Your task to perform on an android device: change alarm snooze length Image 0: 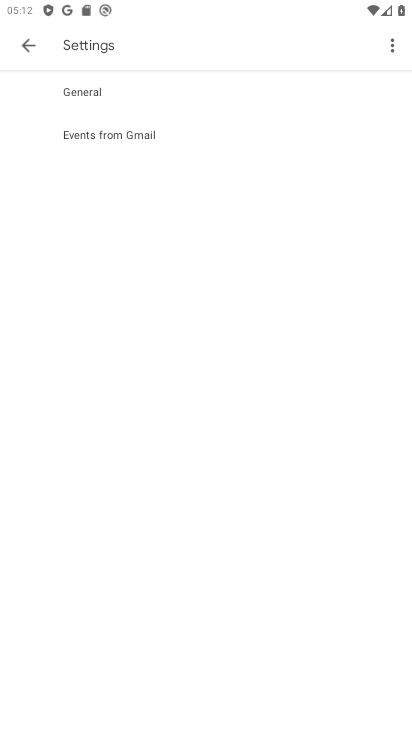
Step 0: press home button
Your task to perform on an android device: change alarm snooze length Image 1: 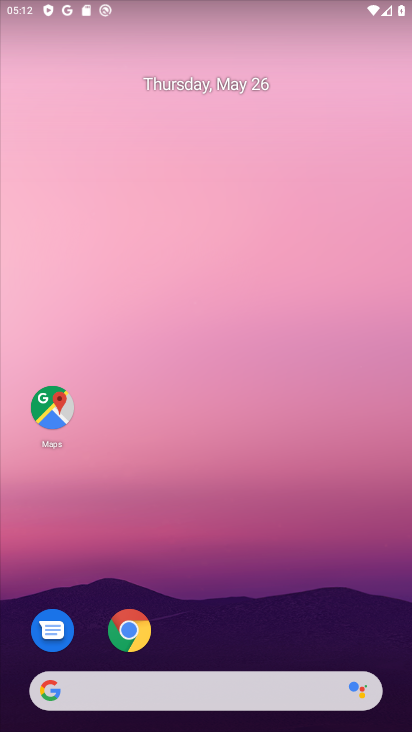
Step 1: drag from (176, 673) to (269, 131)
Your task to perform on an android device: change alarm snooze length Image 2: 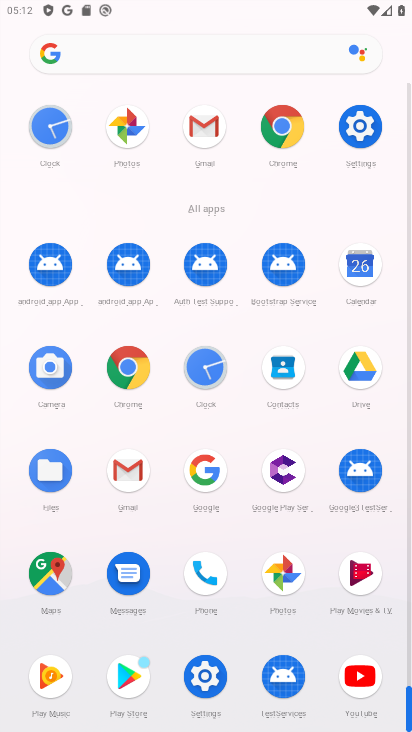
Step 2: click (201, 364)
Your task to perform on an android device: change alarm snooze length Image 3: 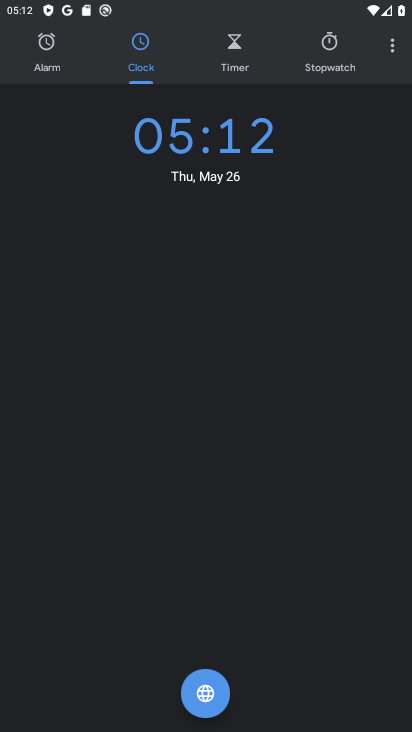
Step 3: click (389, 59)
Your task to perform on an android device: change alarm snooze length Image 4: 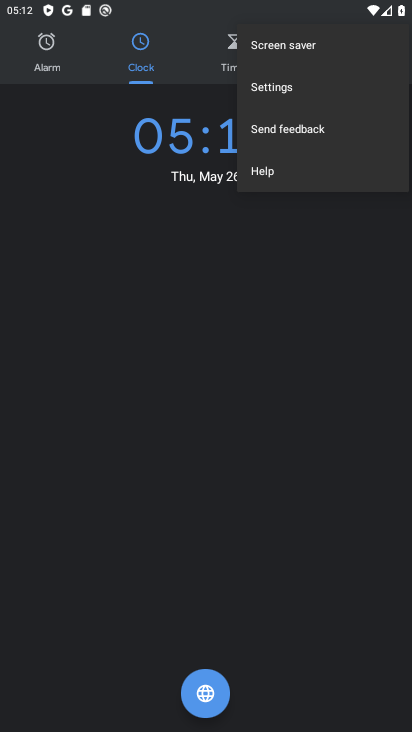
Step 4: click (344, 92)
Your task to perform on an android device: change alarm snooze length Image 5: 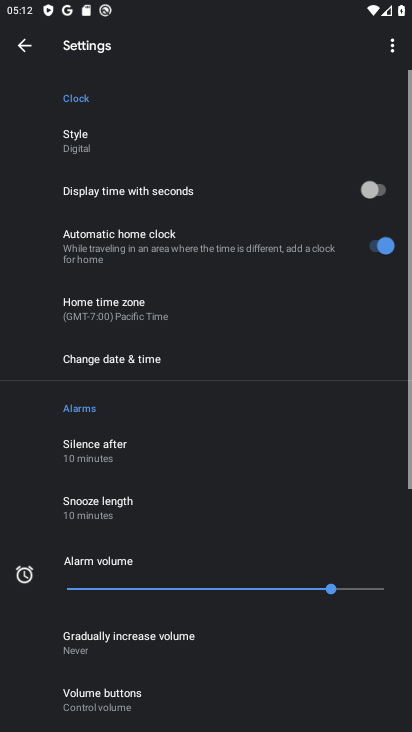
Step 5: drag from (186, 560) to (295, 190)
Your task to perform on an android device: change alarm snooze length Image 6: 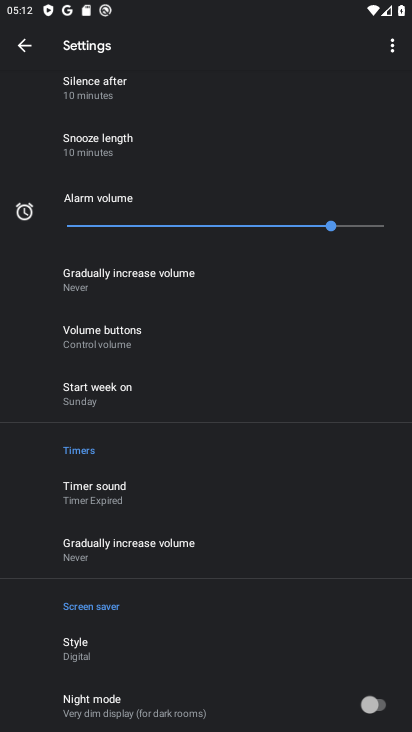
Step 6: drag from (157, 602) to (262, 587)
Your task to perform on an android device: change alarm snooze length Image 7: 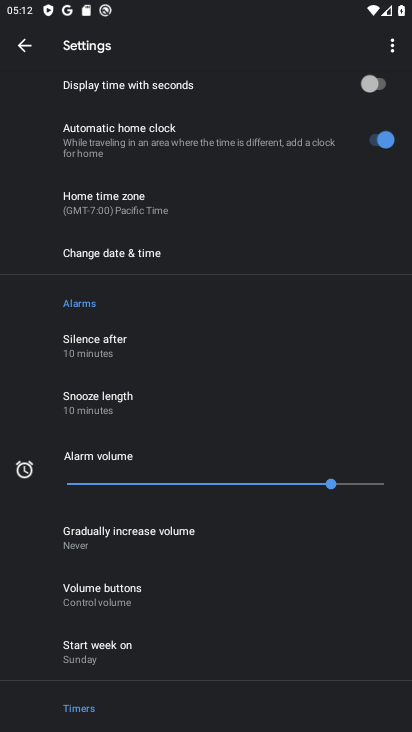
Step 7: click (151, 400)
Your task to perform on an android device: change alarm snooze length Image 8: 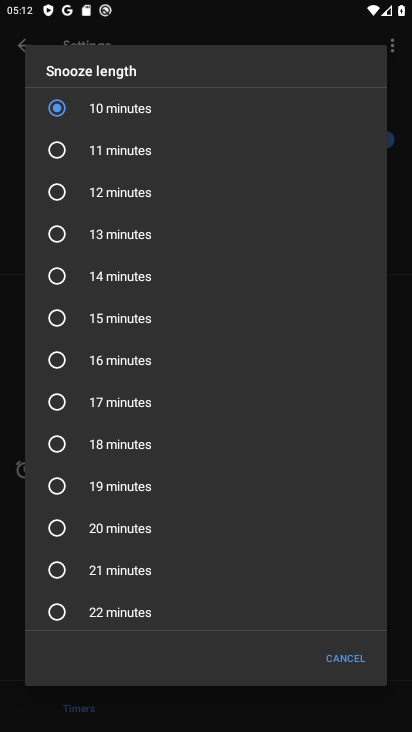
Step 8: click (129, 516)
Your task to perform on an android device: change alarm snooze length Image 9: 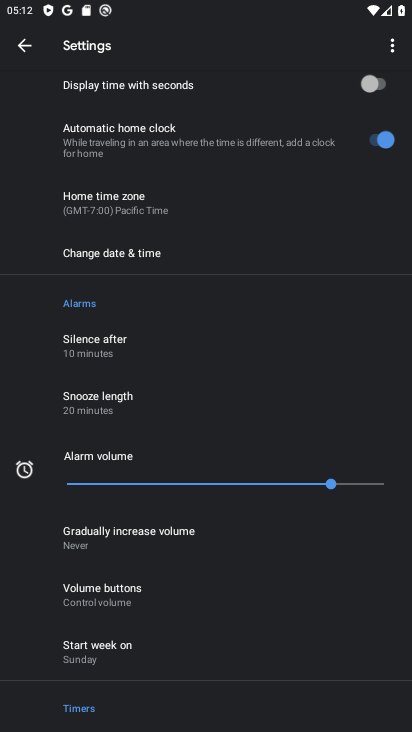
Step 9: task complete